Your task to perform on an android device: toggle translation in the chrome app Image 0: 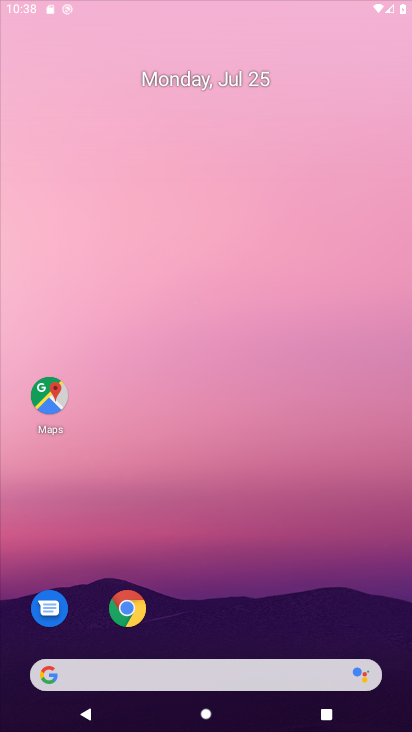
Step 0: drag from (228, 584) to (241, 81)
Your task to perform on an android device: toggle translation in the chrome app Image 1: 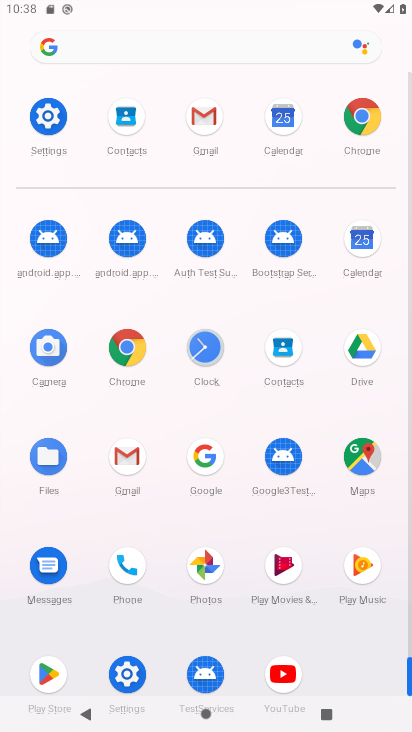
Step 1: click (367, 110)
Your task to perform on an android device: toggle translation in the chrome app Image 2: 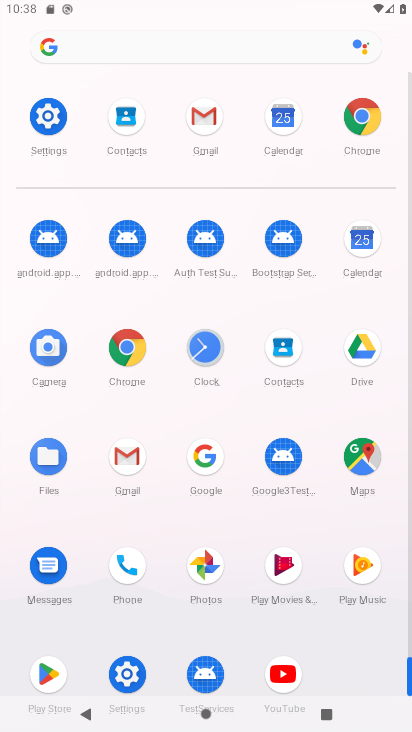
Step 2: click (361, 104)
Your task to perform on an android device: toggle translation in the chrome app Image 3: 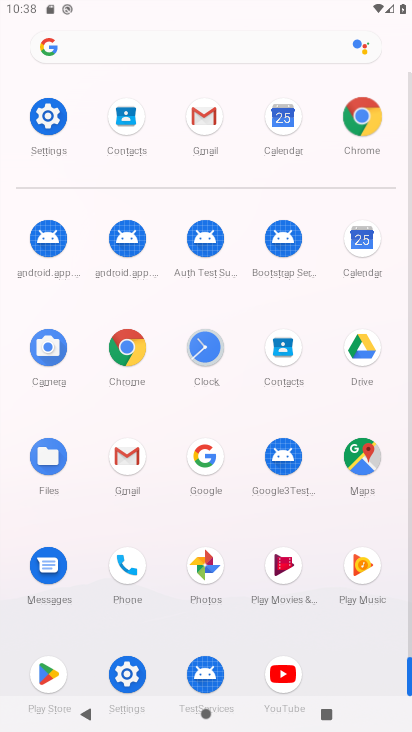
Step 3: click (361, 104)
Your task to perform on an android device: toggle translation in the chrome app Image 4: 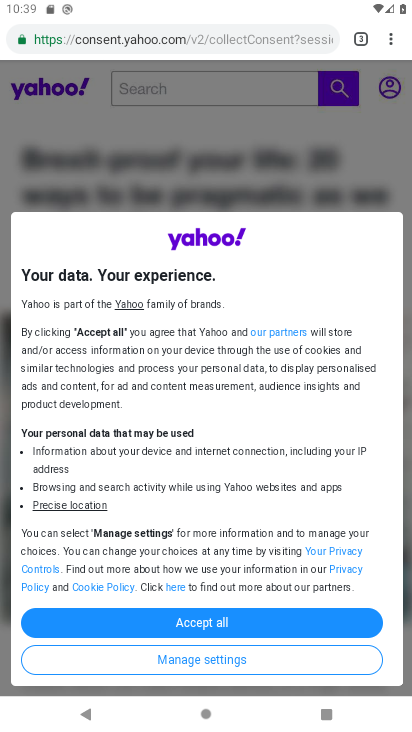
Step 4: click (394, 40)
Your task to perform on an android device: toggle translation in the chrome app Image 5: 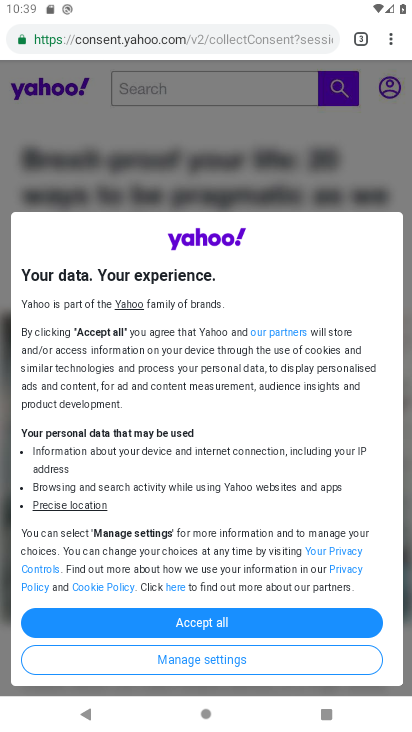
Step 5: click (386, 37)
Your task to perform on an android device: toggle translation in the chrome app Image 6: 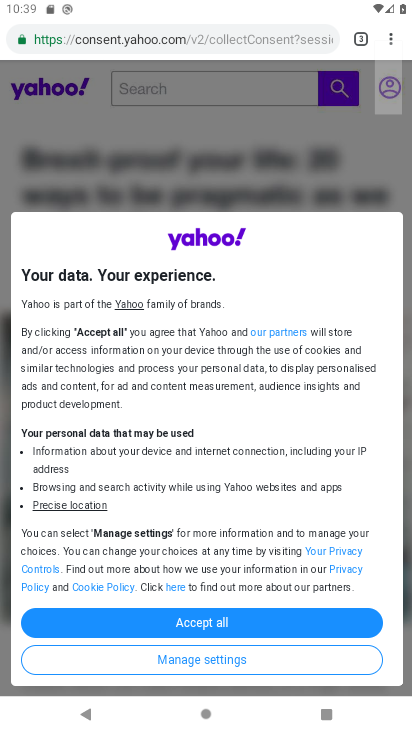
Step 6: click (396, 37)
Your task to perform on an android device: toggle translation in the chrome app Image 7: 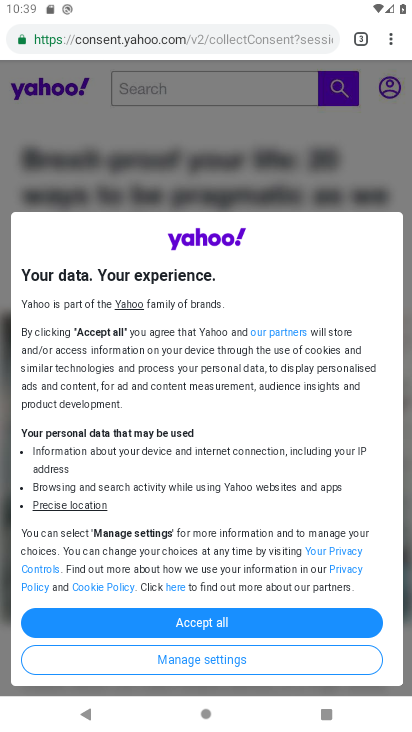
Step 7: drag from (393, 31) to (242, 467)
Your task to perform on an android device: toggle translation in the chrome app Image 8: 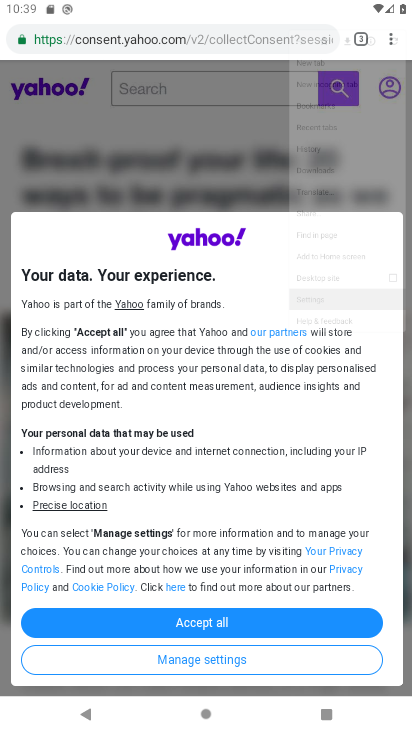
Step 8: click (243, 467)
Your task to perform on an android device: toggle translation in the chrome app Image 9: 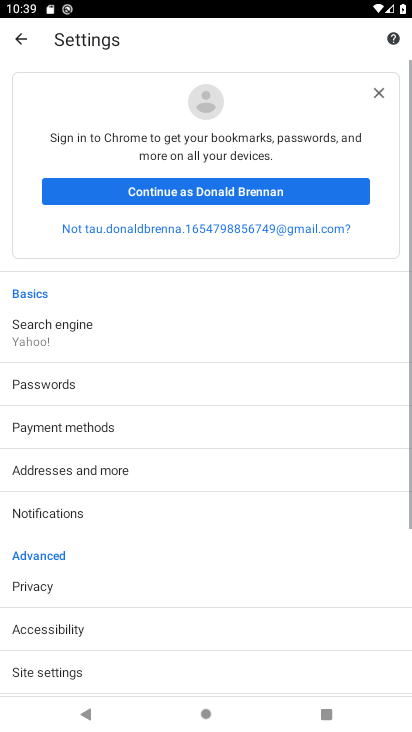
Step 9: drag from (129, 561) to (249, 204)
Your task to perform on an android device: toggle translation in the chrome app Image 10: 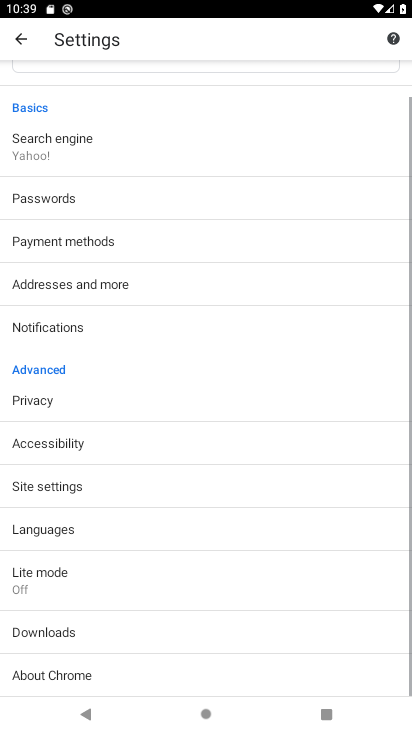
Step 10: drag from (273, 620) to (240, 278)
Your task to perform on an android device: toggle translation in the chrome app Image 11: 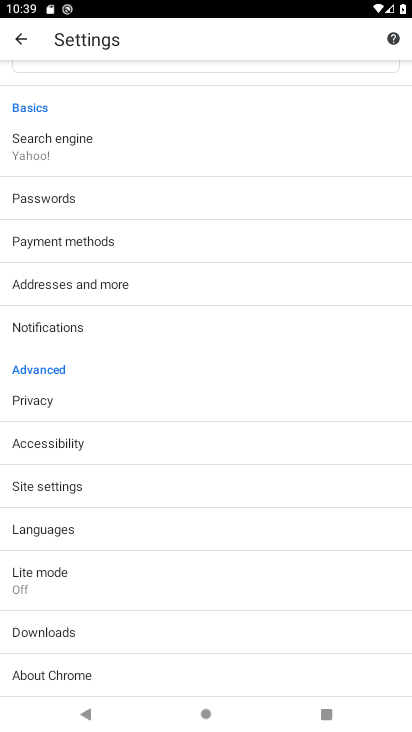
Step 11: click (83, 527)
Your task to perform on an android device: toggle translation in the chrome app Image 12: 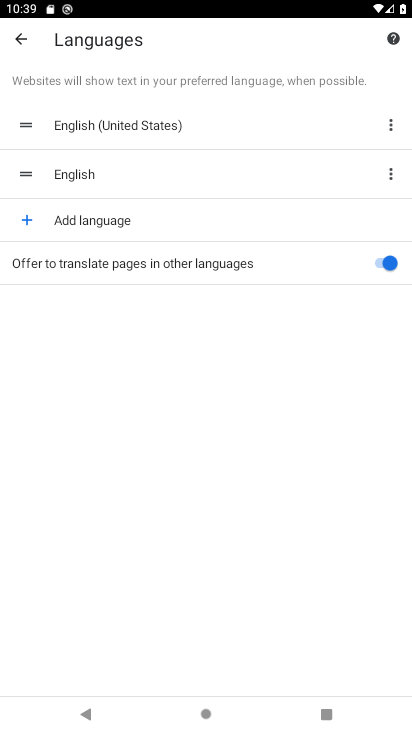
Step 12: click (383, 257)
Your task to perform on an android device: toggle translation in the chrome app Image 13: 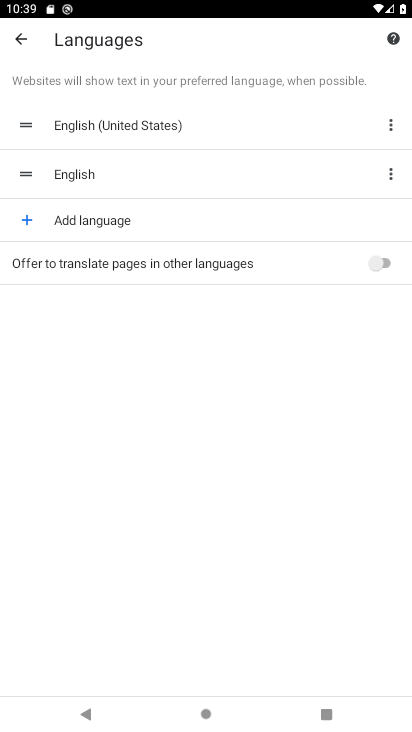
Step 13: task complete